Your task to perform on an android device: What's the weather going to be this weekend? Image 0: 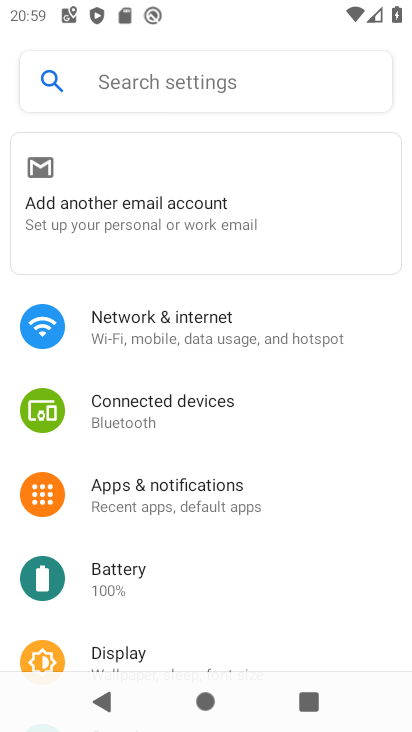
Step 0: press home button
Your task to perform on an android device: What's the weather going to be this weekend? Image 1: 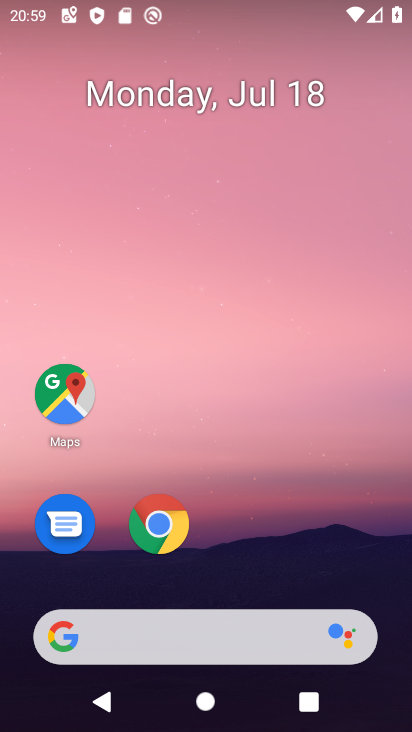
Step 1: click (241, 653)
Your task to perform on an android device: What's the weather going to be this weekend? Image 2: 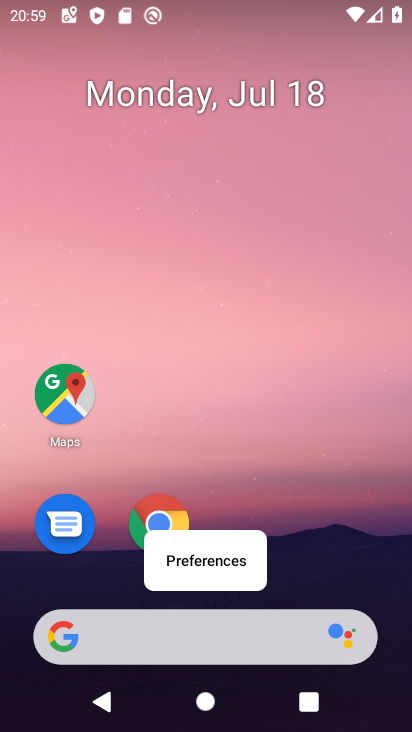
Step 2: click (170, 639)
Your task to perform on an android device: What's the weather going to be this weekend? Image 3: 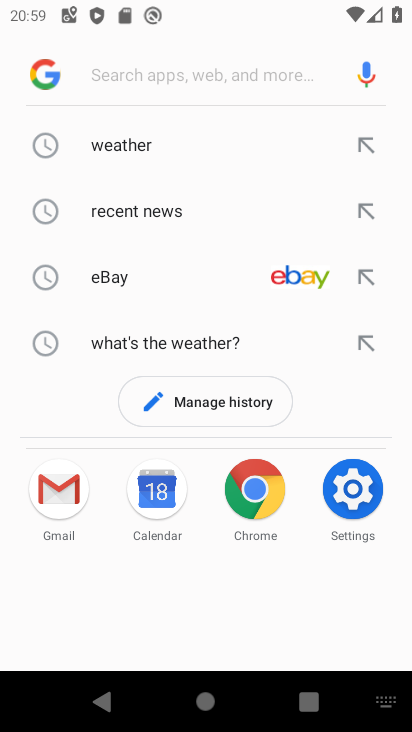
Step 3: click (126, 132)
Your task to perform on an android device: What's the weather going to be this weekend? Image 4: 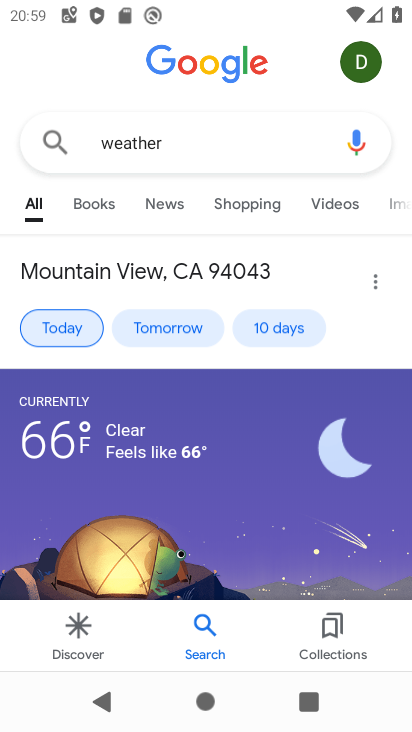
Step 4: click (64, 317)
Your task to perform on an android device: What's the weather going to be this weekend? Image 5: 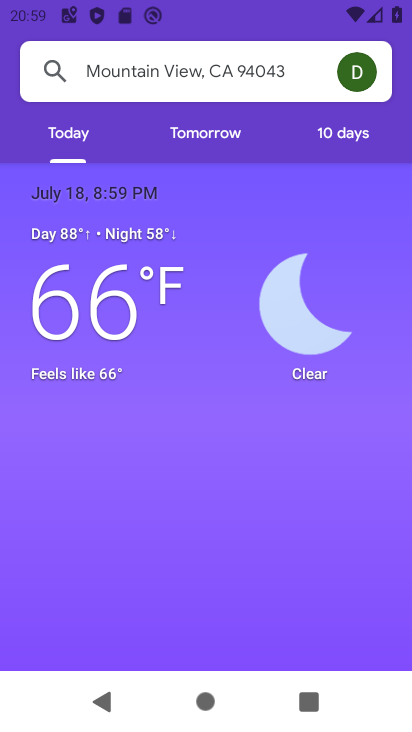
Step 5: click (364, 126)
Your task to perform on an android device: What's the weather going to be this weekend? Image 6: 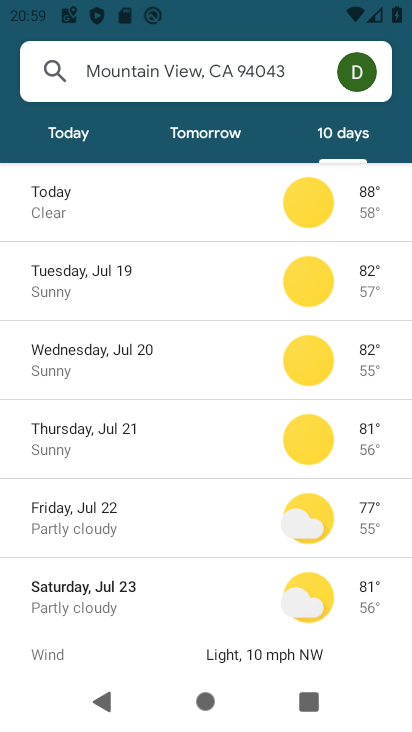
Step 6: task complete